Your task to perform on an android device: Open the map Image 0: 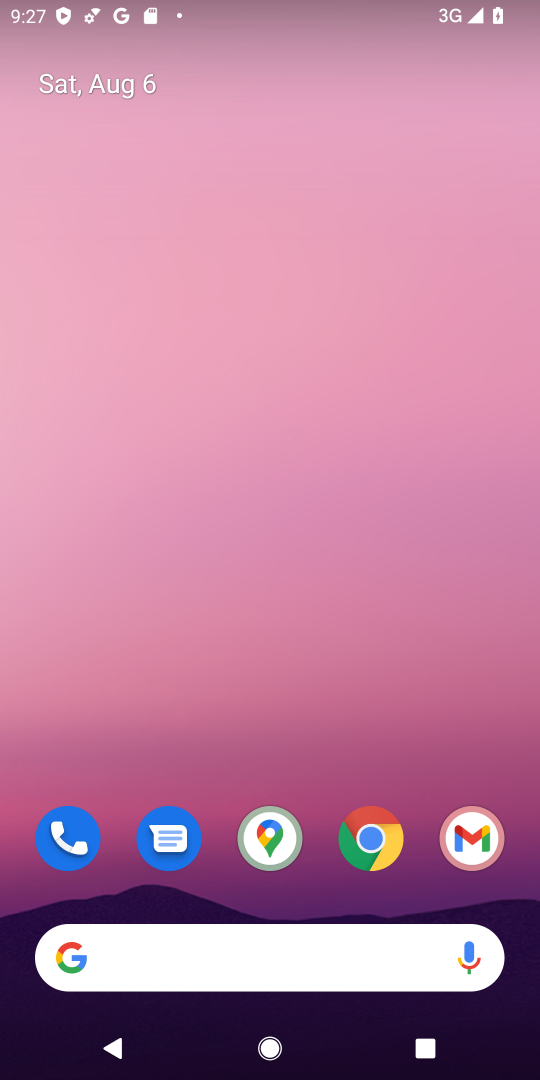
Step 0: click (295, 814)
Your task to perform on an android device: Open the map Image 1: 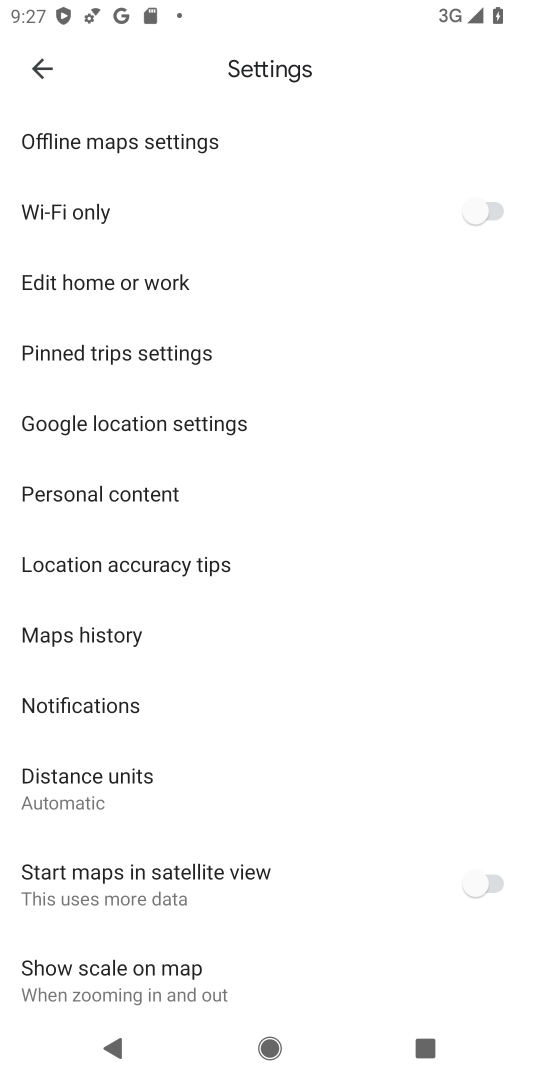
Step 1: click (42, 61)
Your task to perform on an android device: Open the map Image 2: 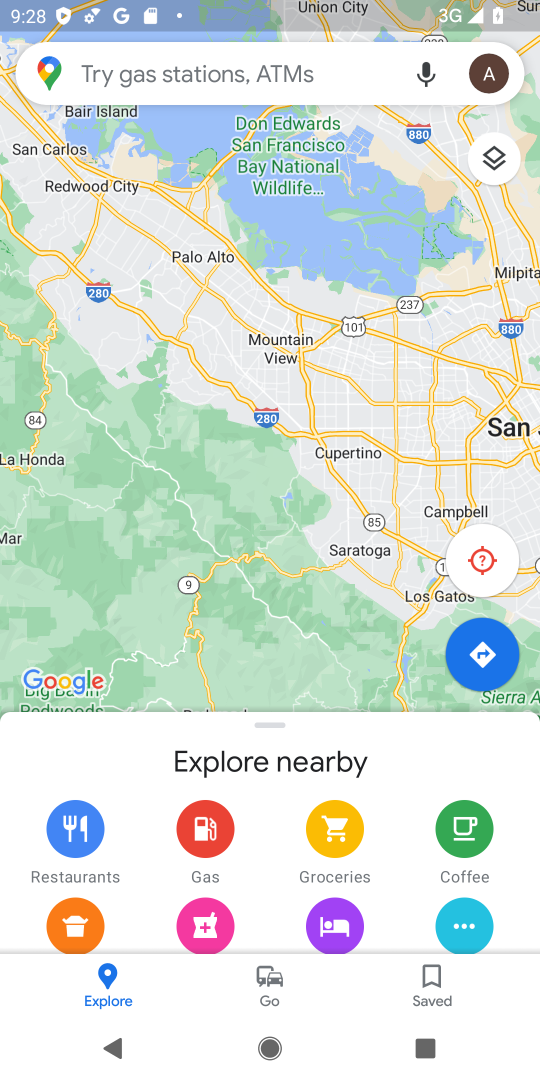
Step 2: task complete